Your task to perform on an android device: turn on notifications settings in the gmail app Image 0: 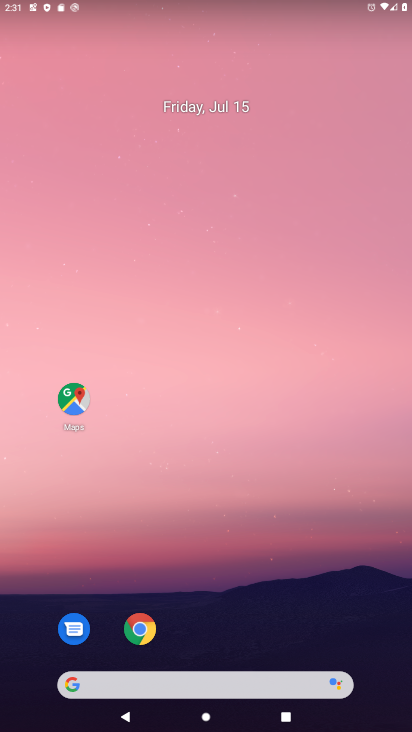
Step 0: drag from (298, 598) to (241, 166)
Your task to perform on an android device: turn on notifications settings in the gmail app Image 1: 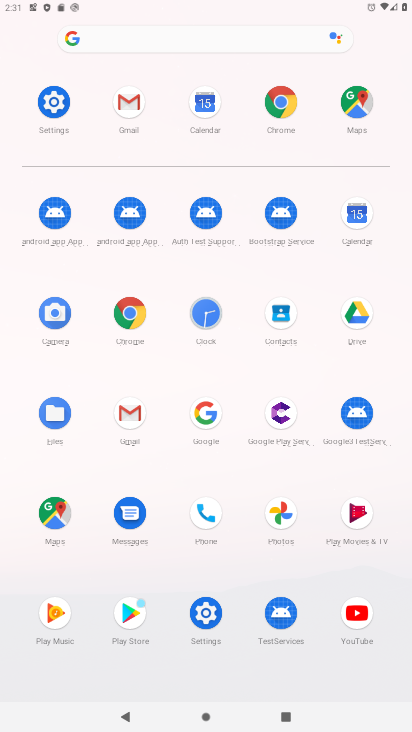
Step 1: click (138, 96)
Your task to perform on an android device: turn on notifications settings in the gmail app Image 2: 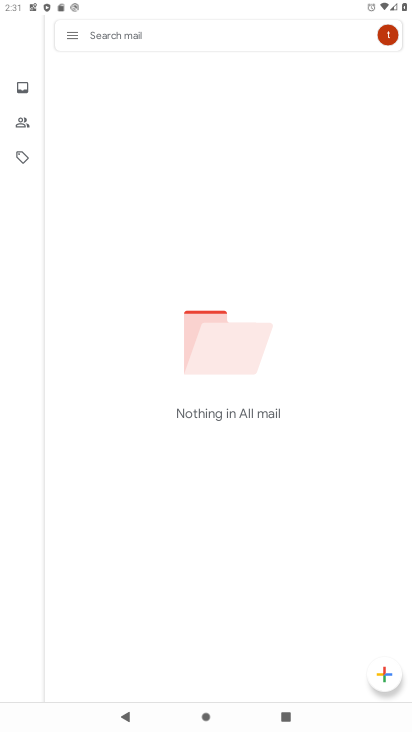
Step 2: click (63, 33)
Your task to perform on an android device: turn on notifications settings in the gmail app Image 3: 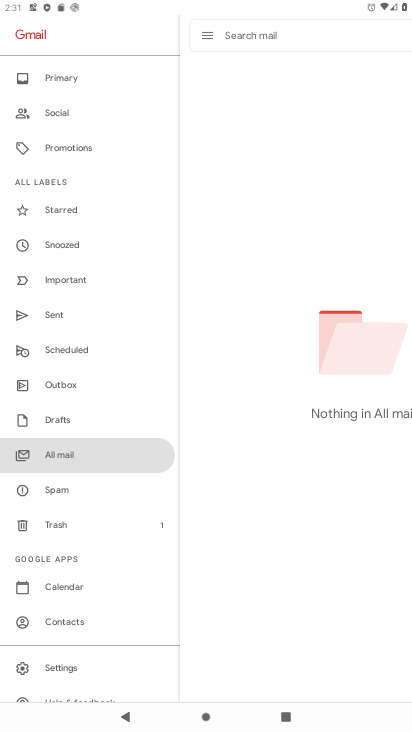
Step 3: drag from (80, 617) to (136, 208)
Your task to perform on an android device: turn on notifications settings in the gmail app Image 4: 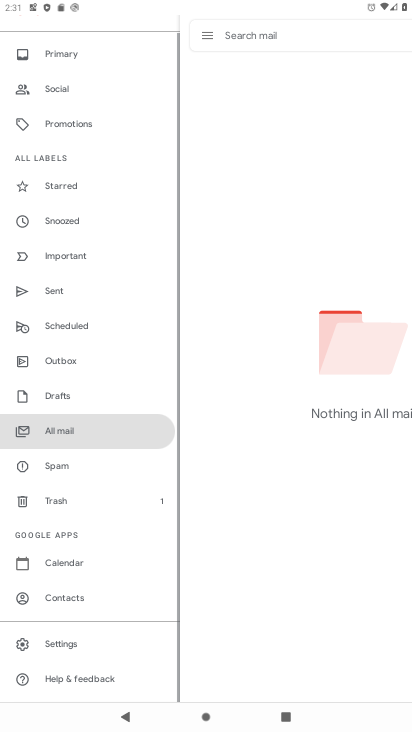
Step 4: click (78, 649)
Your task to perform on an android device: turn on notifications settings in the gmail app Image 5: 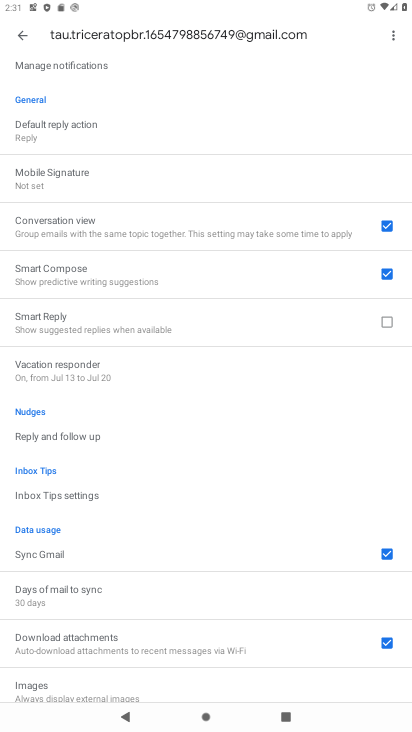
Step 5: click (106, 371)
Your task to perform on an android device: turn on notifications settings in the gmail app Image 6: 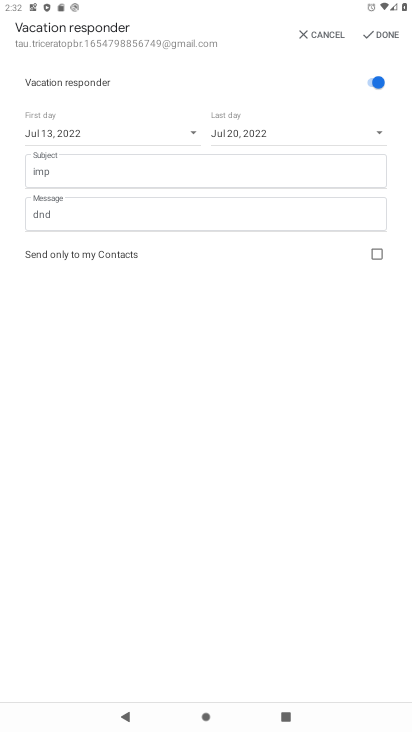
Step 6: press home button
Your task to perform on an android device: turn on notifications settings in the gmail app Image 7: 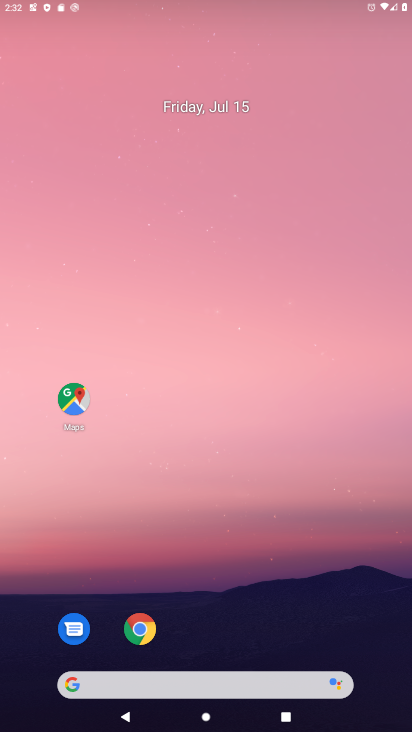
Step 7: drag from (315, 609) to (277, 126)
Your task to perform on an android device: turn on notifications settings in the gmail app Image 8: 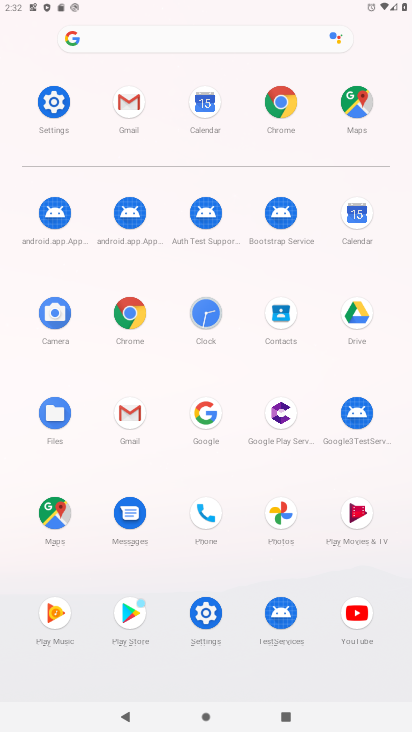
Step 8: click (138, 103)
Your task to perform on an android device: turn on notifications settings in the gmail app Image 9: 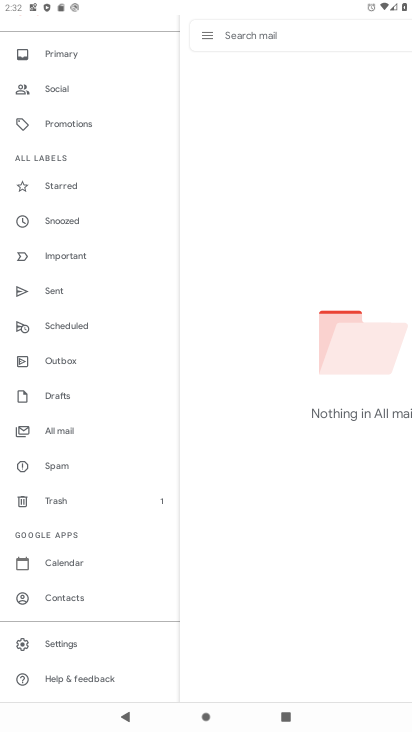
Step 9: click (82, 640)
Your task to perform on an android device: turn on notifications settings in the gmail app Image 10: 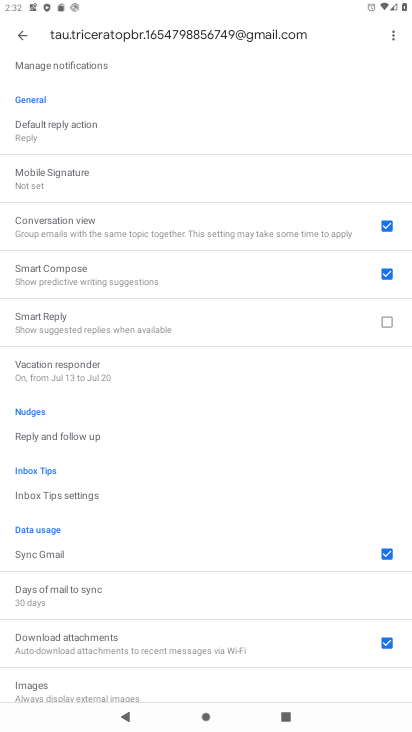
Step 10: drag from (98, 541) to (123, 148)
Your task to perform on an android device: turn on notifications settings in the gmail app Image 11: 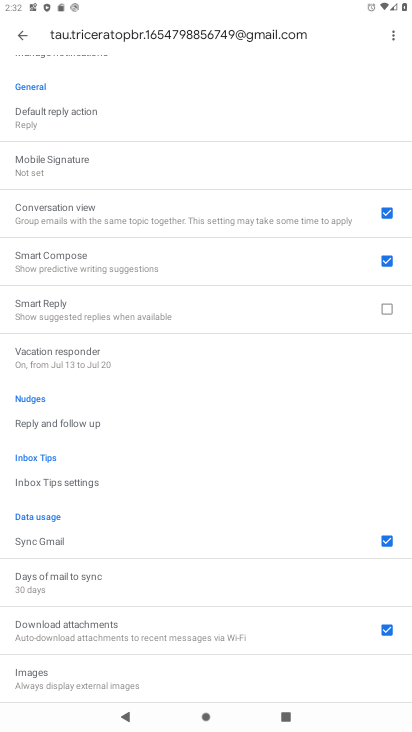
Step 11: drag from (121, 114) to (177, 579)
Your task to perform on an android device: turn on notifications settings in the gmail app Image 12: 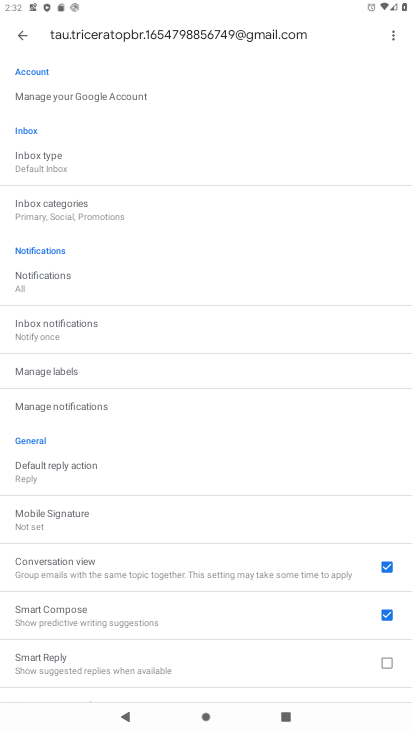
Step 12: click (65, 421)
Your task to perform on an android device: turn on notifications settings in the gmail app Image 13: 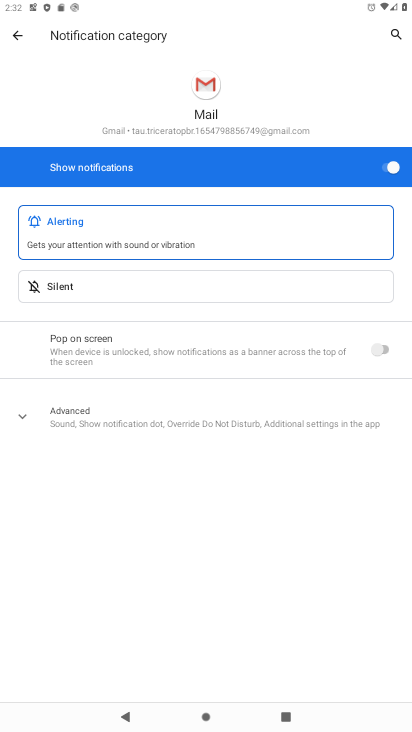
Step 13: task complete